Your task to perform on an android device: Turn on the flashlight Image 0: 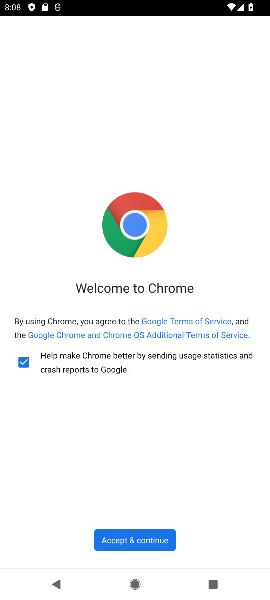
Step 0: press home button
Your task to perform on an android device: Turn on the flashlight Image 1: 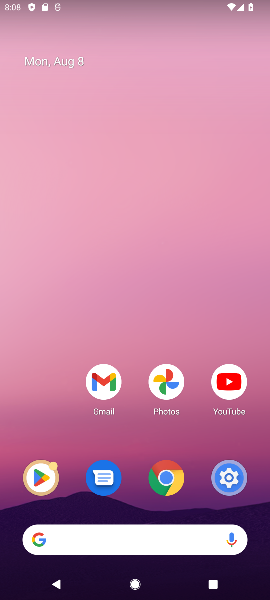
Step 1: task complete